Your task to perform on an android device: What's the weather today? Image 0: 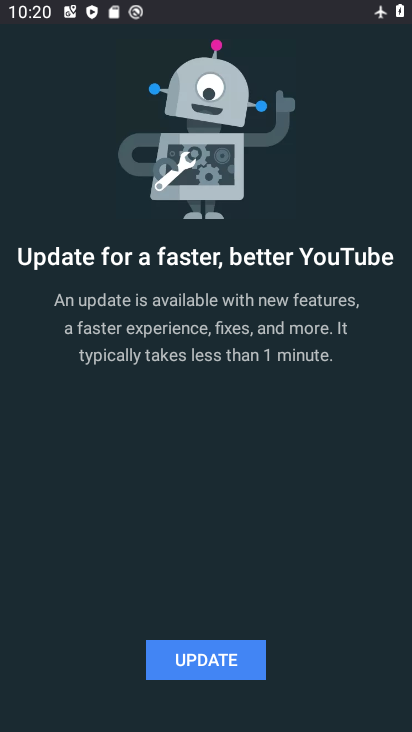
Step 0: press home button
Your task to perform on an android device: What's the weather today? Image 1: 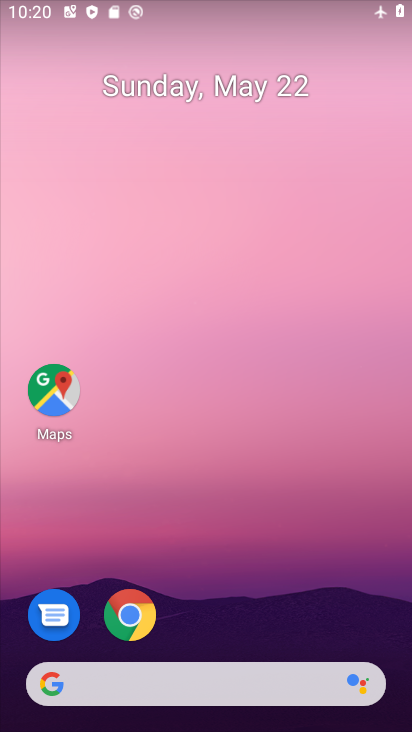
Step 1: drag from (282, 595) to (166, 52)
Your task to perform on an android device: What's the weather today? Image 2: 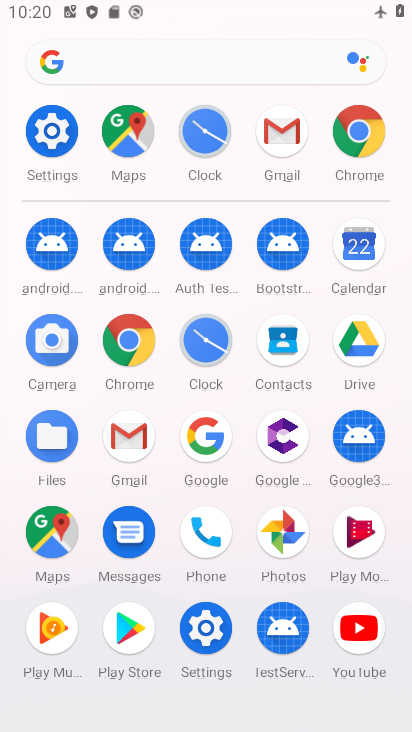
Step 2: click (367, 125)
Your task to perform on an android device: What's the weather today? Image 3: 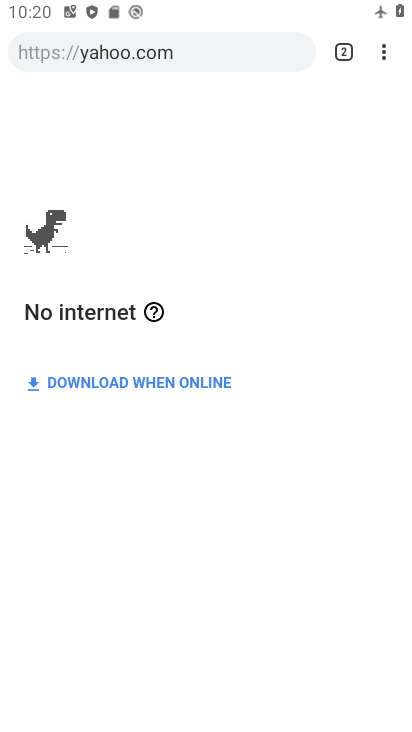
Step 3: click (131, 40)
Your task to perform on an android device: What's the weather today? Image 4: 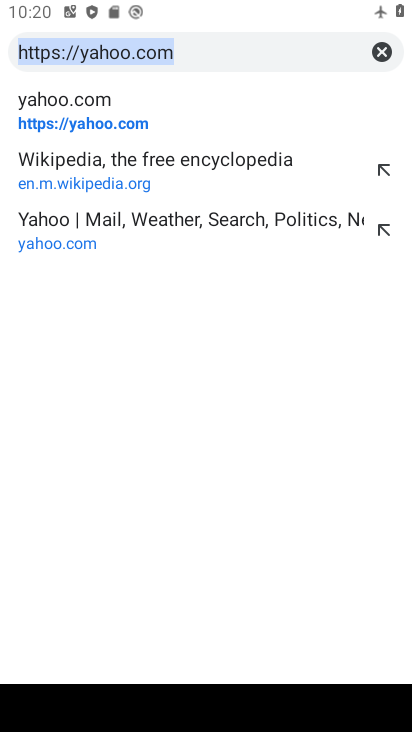
Step 4: type "weather"
Your task to perform on an android device: What's the weather today? Image 5: 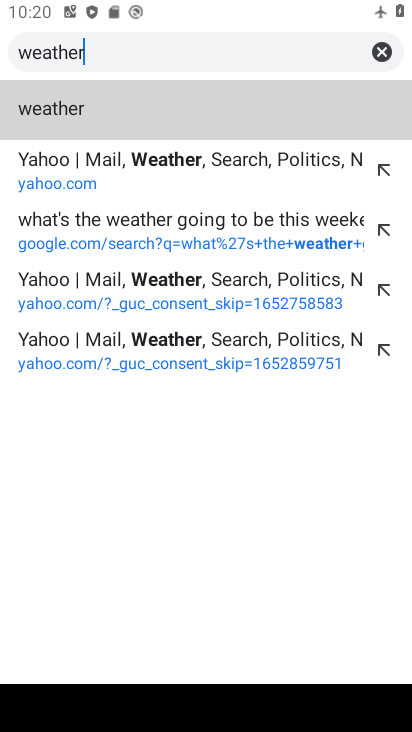
Step 5: click (70, 102)
Your task to perform on an android device: What's the weather today? Image 6: 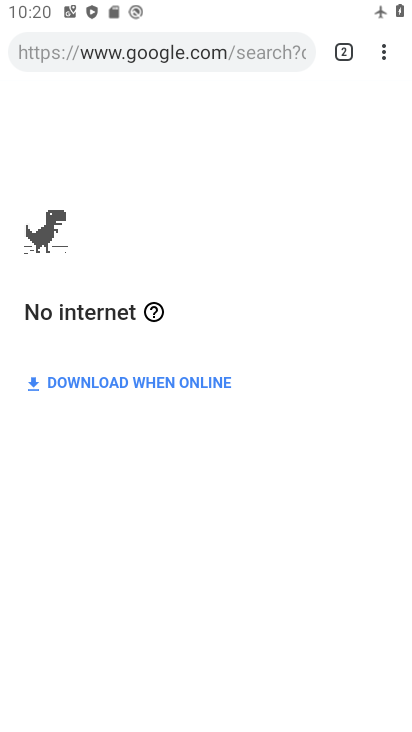
Step 6: task complete